Your task to perform on an android device: add a contact Image 0: 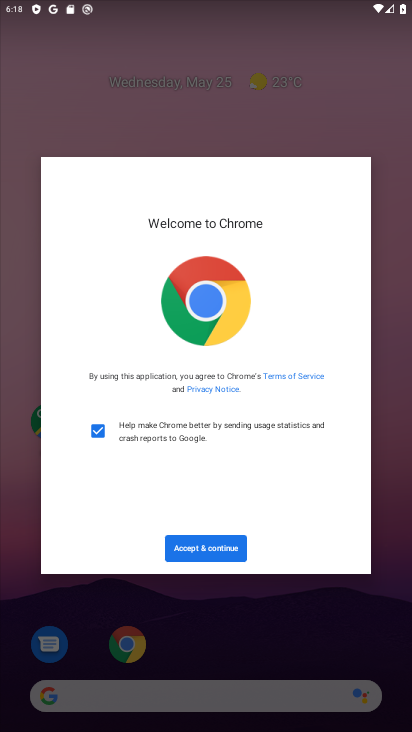
Step 0: press home button
Your task to perform on an android device: add a contact Image 1: 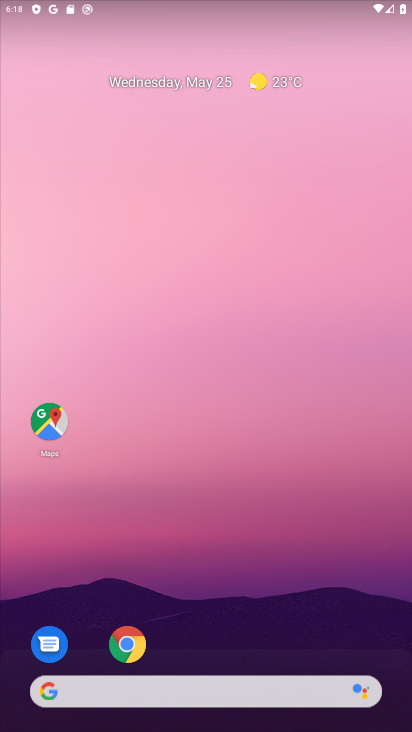
Step 1: drag from (332, 623) to (234, 59)
Your task to perform on an android device: add a contact Image 2: 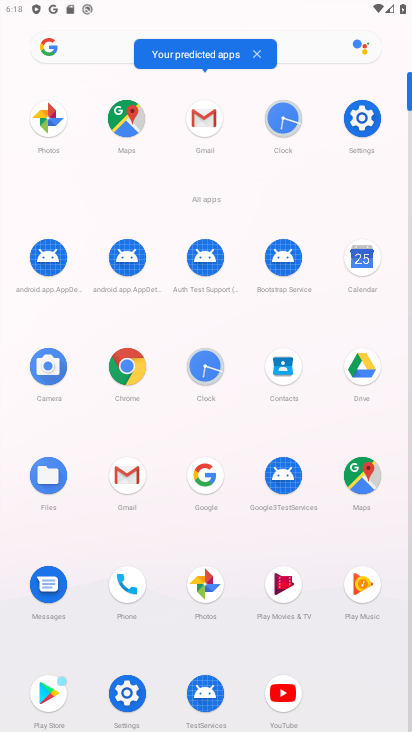
Step 2: click (274, 365)
Your task to perform on an android device: add a contact Image 3: 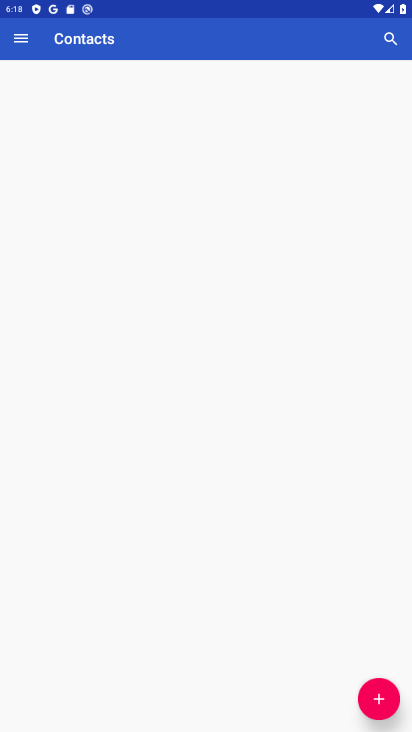
Step 3: click (378, 687)
Your task to perform on an android device: add a contact Image 4: 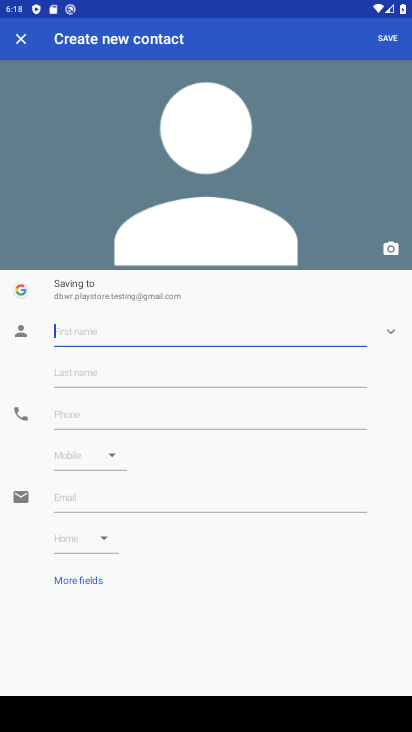
Step 4: type "arsh"
Your task to perform on an android device: add a contact Image 5: 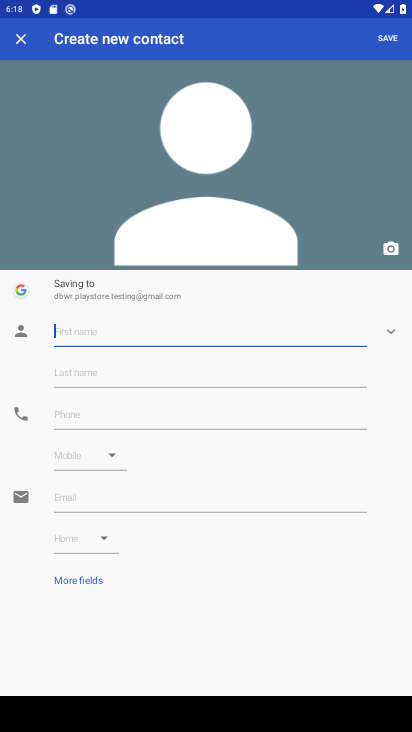
Step 5: click (394, 33)
Your task to perform on an android device: add a contact Image 6: 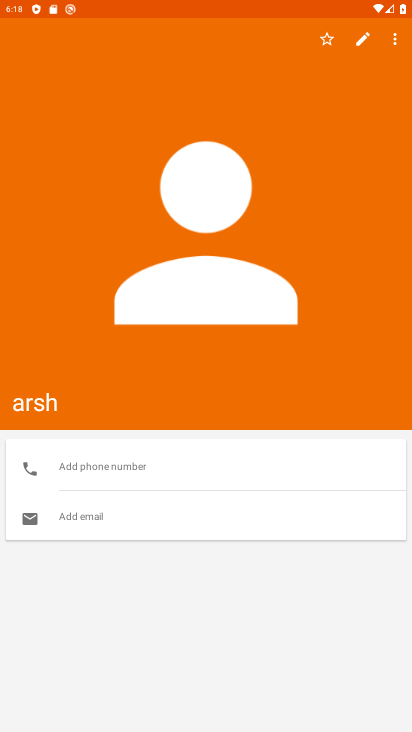
Step 6: task complete